Your task to perform on an android device: move a message to another label in the gmail app Image 0: 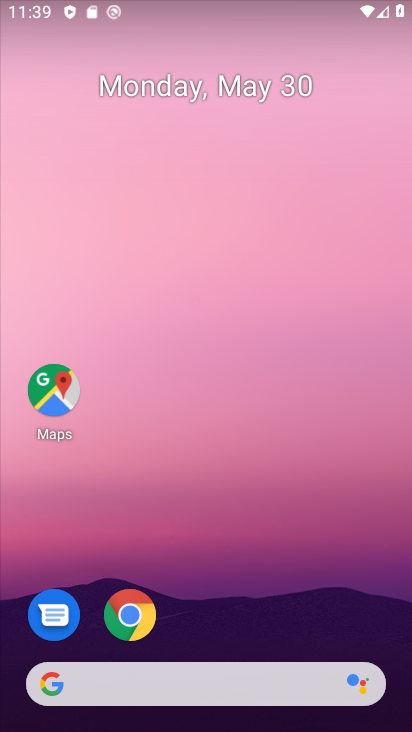
Step 0: drag from (354, 613) to (360, 148)
Your task to perform on an android device: move a message to another label in the gmail app Image 1: 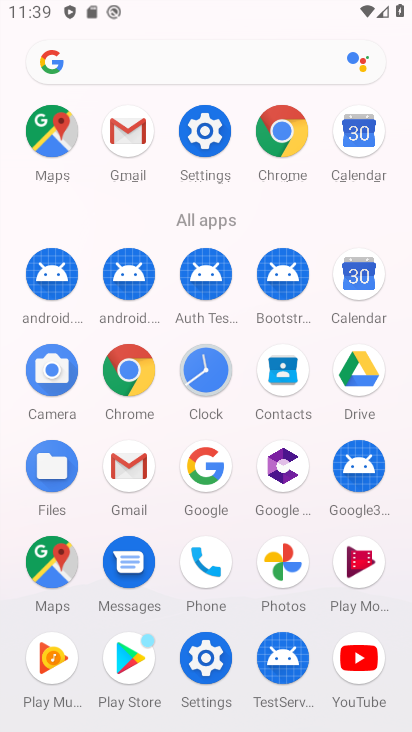
Step 1: click (138, 478)
Your task to perform on an android device: move a message to another label in the gmail app Image 2: 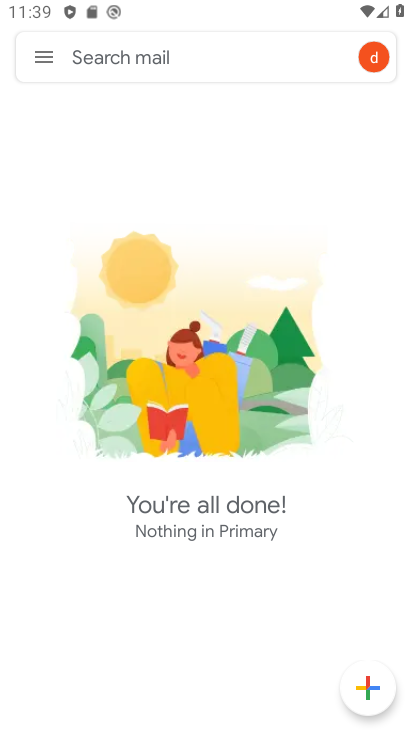
Step 2: task complete